Your task to perform on an android device: Search for vegetarian restaurants on Maps Image 0: 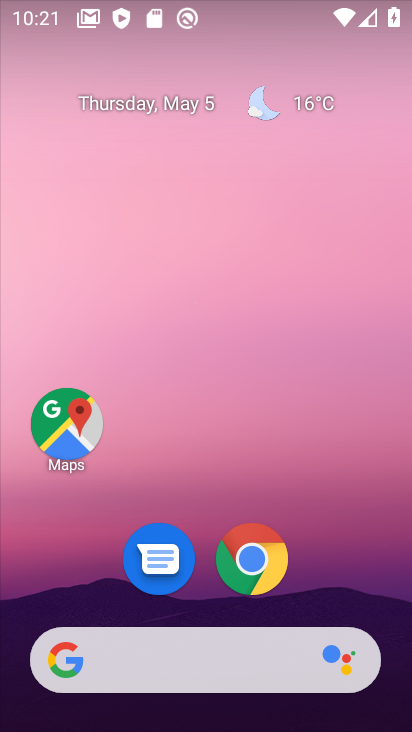
Step 0: click (54, 436)
Your task to perform on an android device: Search for vegetarian restaurants on Maps Image 1: 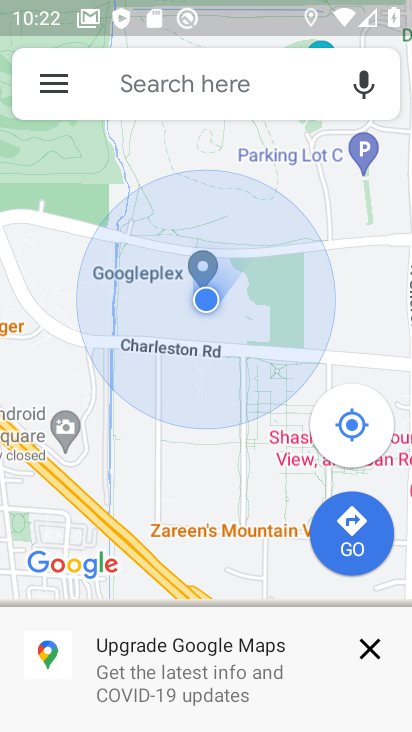
Step 1: click (188, 101)
Your task to perform on an android device: Search for vegetarian restaurants on Maps Image 2: 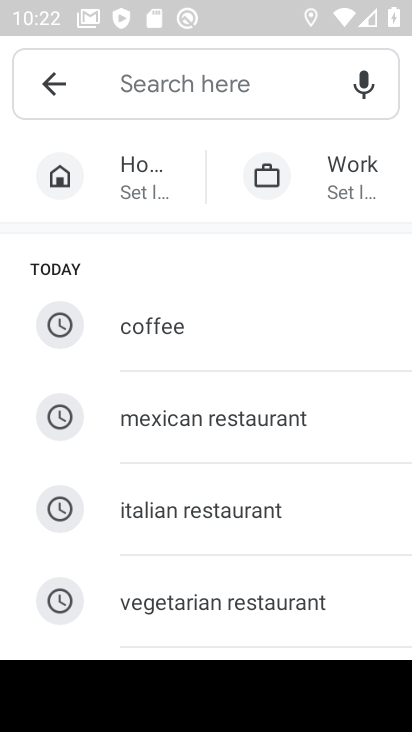
Step 2: click (238, 602)
Your task to perform on an android device: Search for vegetarian restaurants on Maps Image 3: 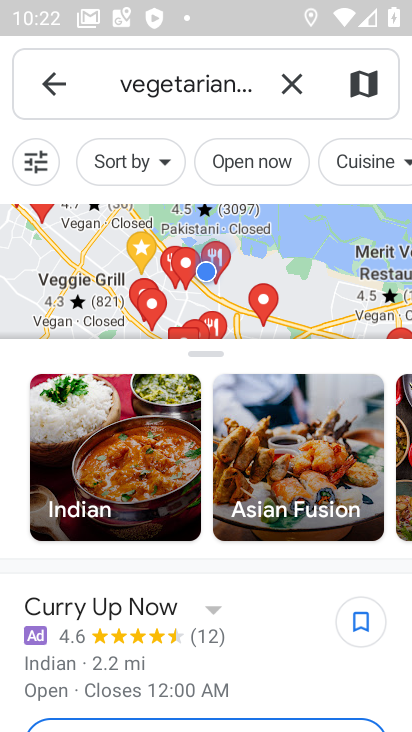
Step 3: task complete